Your task to perform on an android device: What's on my calendar today? Image 0: 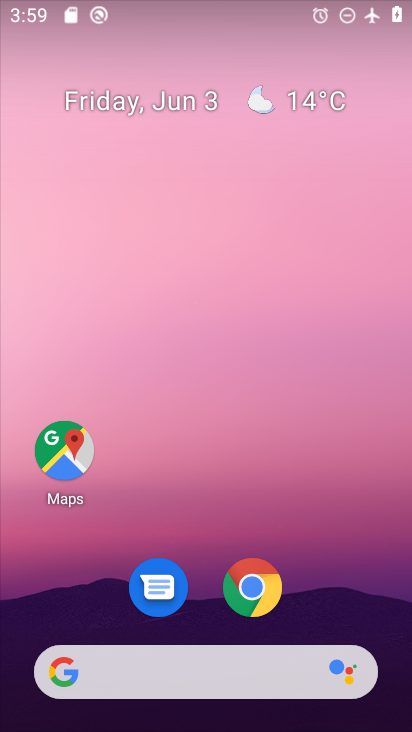
Step 0: drag from (198, 722) to (200, 78)
Your task to perform on an android device: What's on my calendar today? Image 1: 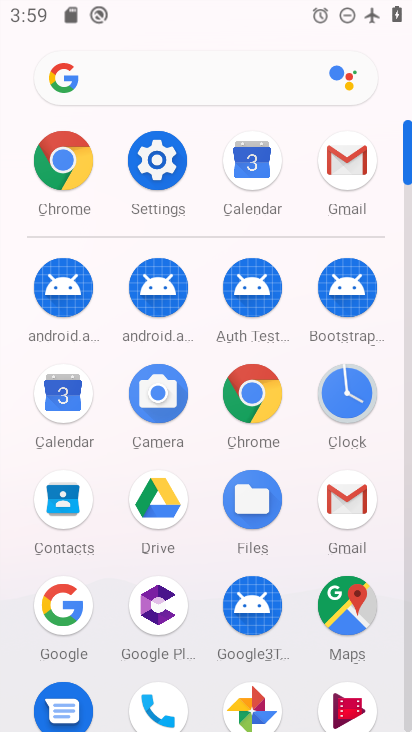
Step 1: click (62, 406)
Your task to perform on an android device: What's on my calendar today? Image 2: 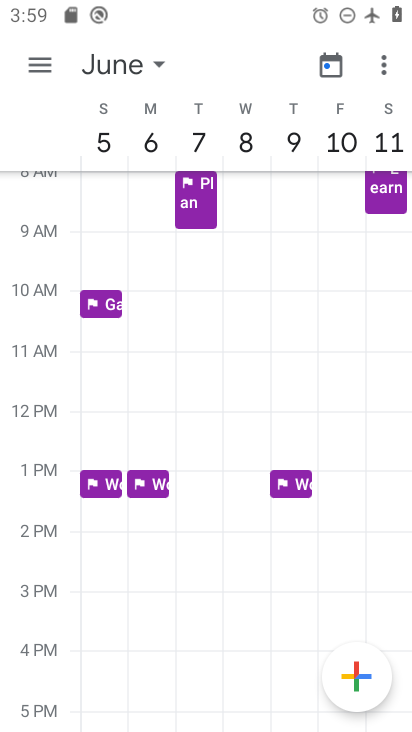
Step 2: drag from (129, 133) to (276, 128)
Your task to perform on an android device: What's on my calendar today? Image 3: 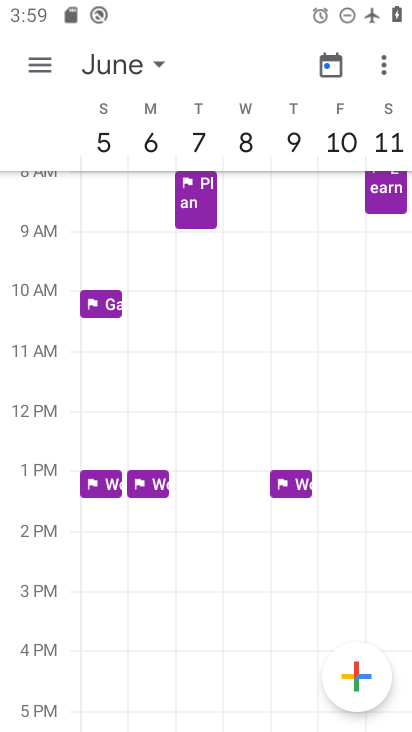
Step 3: drag from (121, 137) to (395, 122)
Your task to perform on an android device: What's on my calendar today? Image 4: 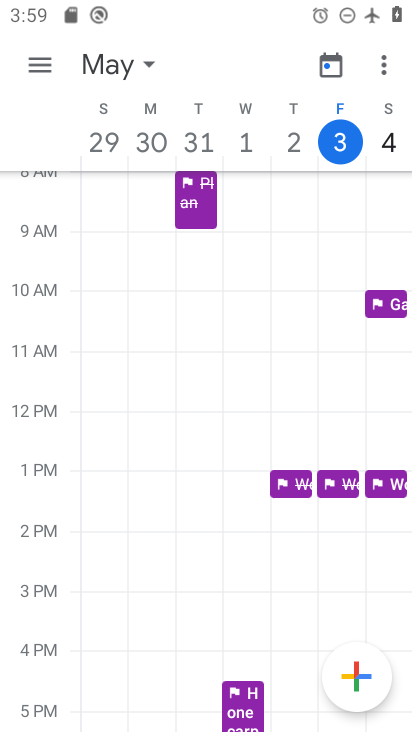
Step 4: click (332, 135)
Your task to perform on an android device: What's on my calendar today? Image 5: 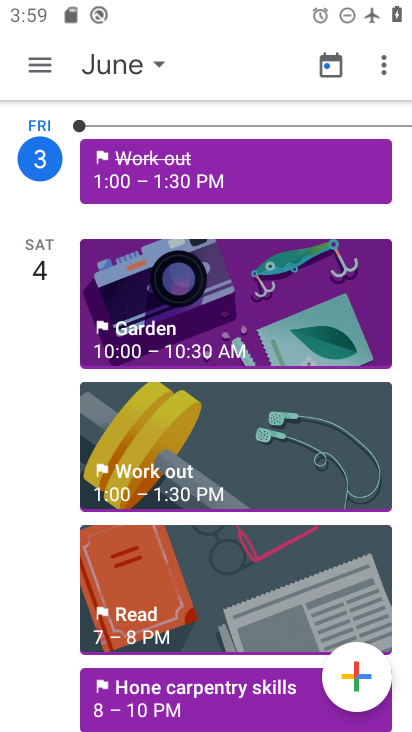
Step 5: task complete